Your task to perform on an android device: change the clock display to show seconds Image 0: 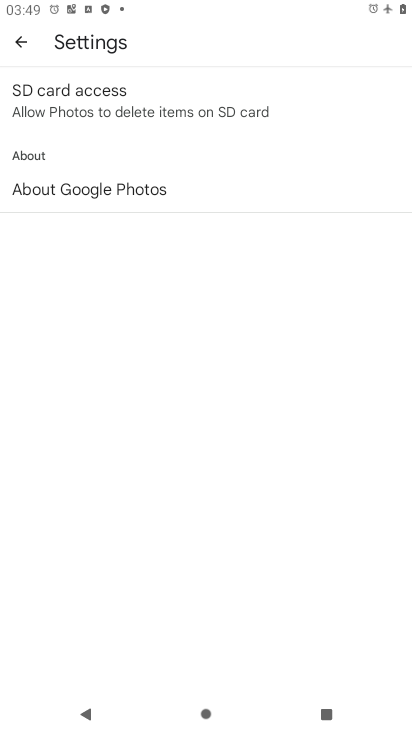
Step 0: press home button
Your task to perform on an android device: change the clock display to show seconds Image 1: 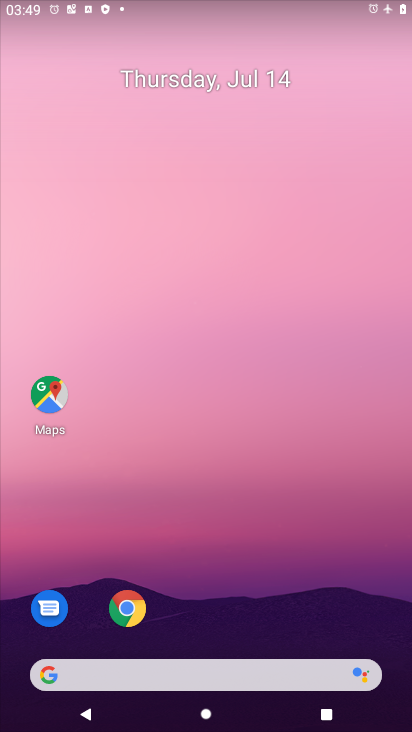
Step 1: drag from (382, 621) to (312, 199)
Your task to perform on an android device: change the clock display to show seconds Image 2: 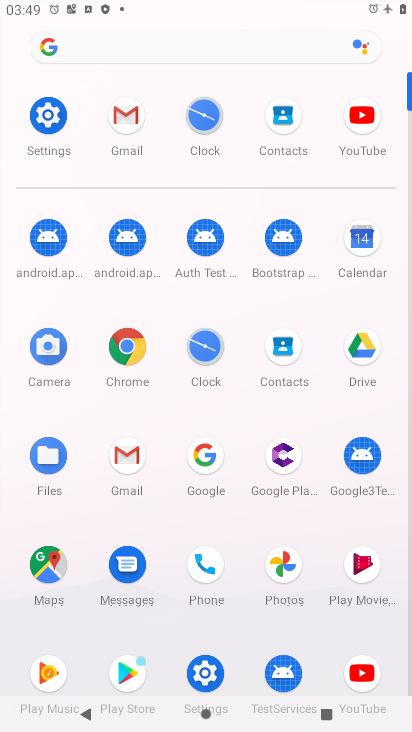
Step 2: click (206, 349)
Your task to perform on an android device: change the clock display to show seconds Image 3: 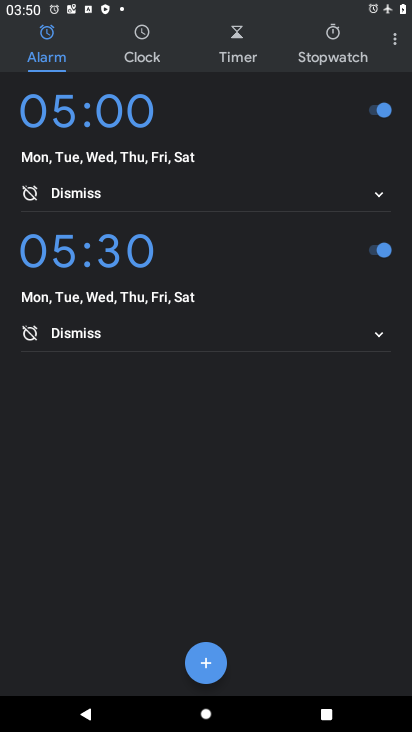
Step 3: click (394, 49)
Your task to perform on an android device: change the clock display to show seconds Image 4: 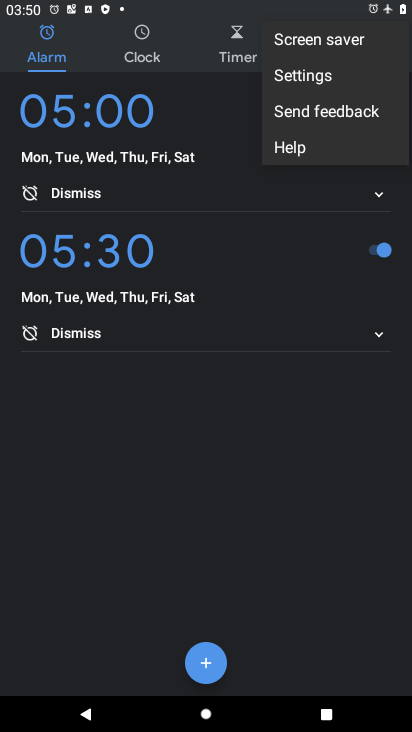
Step 4: click (309, 73)
Your task to perform on an android device: change the clock display to show seconds Image 5: 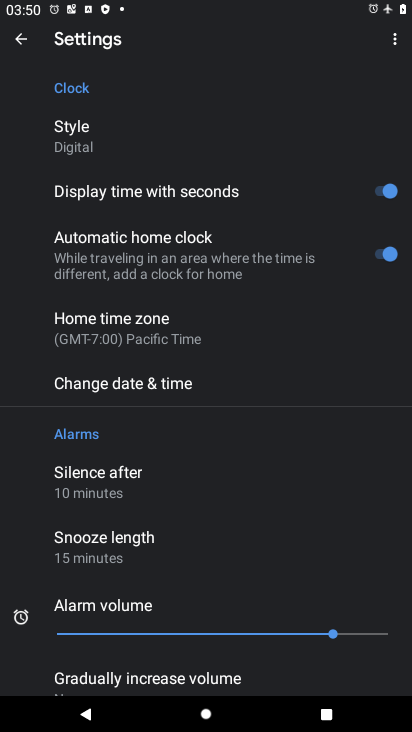
Step 5: task complete